Your task to perform on an android device: Open Youtube and go to the subscriptions tab Image 0: 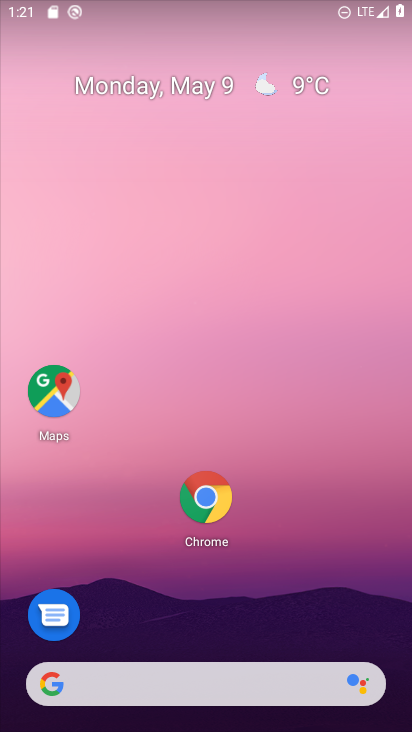
Step 0: drag from (341, 502) to (335, 86)
Your task to perform on an android device: Open Youtube and go to the subscriptions tab Image 1: 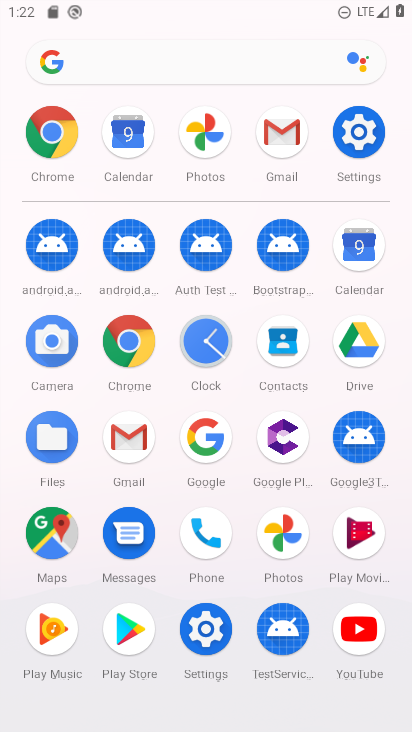
Step 1: click (365, 627)
Your task to perform on an android device: Open Youtube and go to the subscriptions tab Image 2: 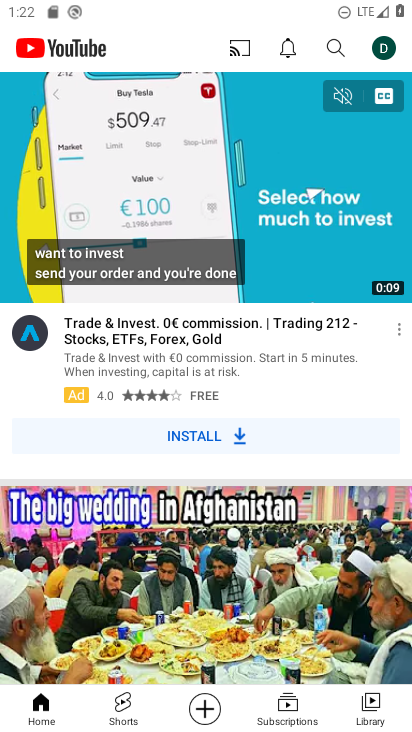
Step 2: click (293, 711)
Your task to perform on an android device: Open Youtube and go to the subscriptions tab Image 3: 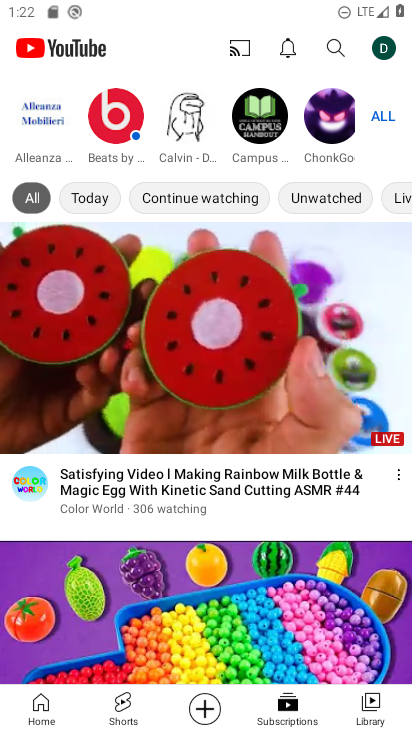
Step 3: task complete